Your task to perform on an android device: Open privacy settings Image 0: 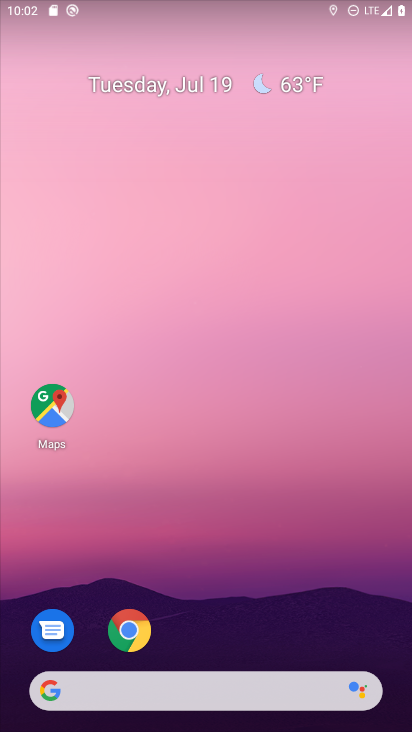
Step 0: drag from (200, 686) to (412, 180)
Your task to perform on an android device: Open privacy settings Image 1: 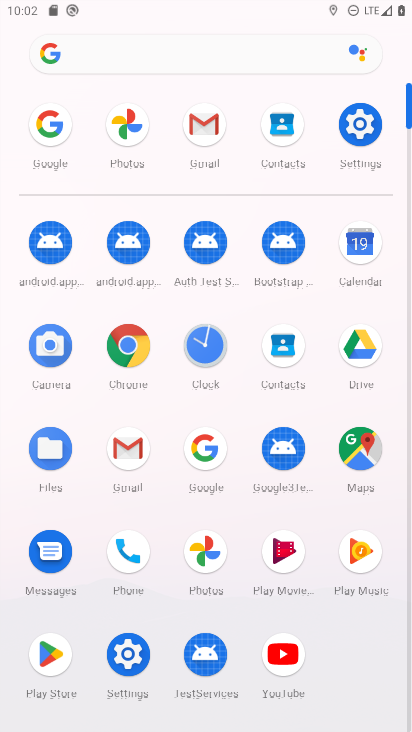
Step 1: click (359, 123)
Your task to perform on an android device: Open privacy settings Image 2: 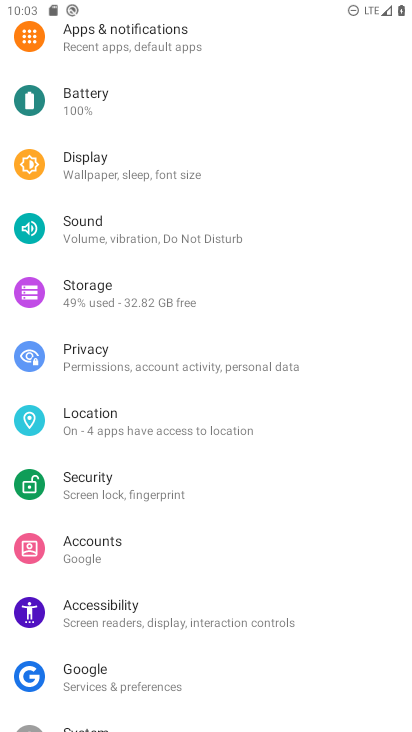
Step 2: click (126, 364)
Your task to perform on an android device: Open privacy settings Image 3: 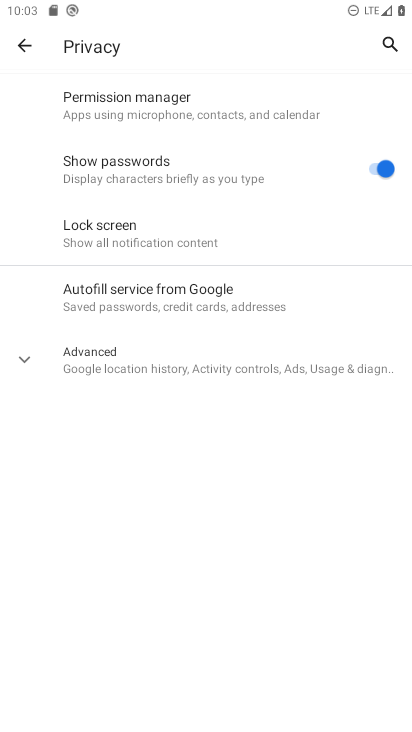
Step 3: task complete